Your task to perform on an android device: Show me recent news Image 0: 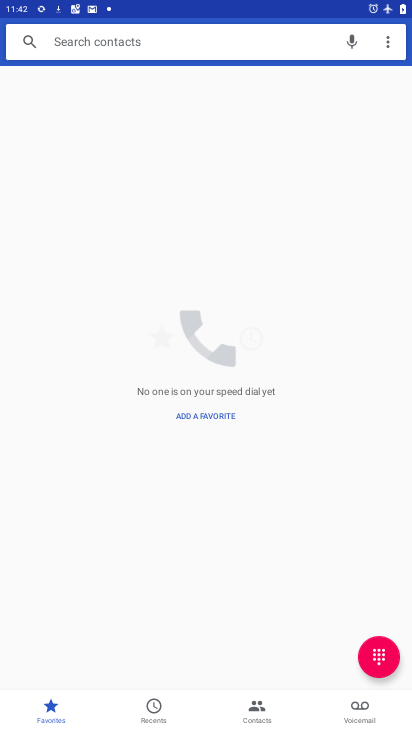
Step 0: press home button
Your task to perform on an android device: Show me recent news Image 1: 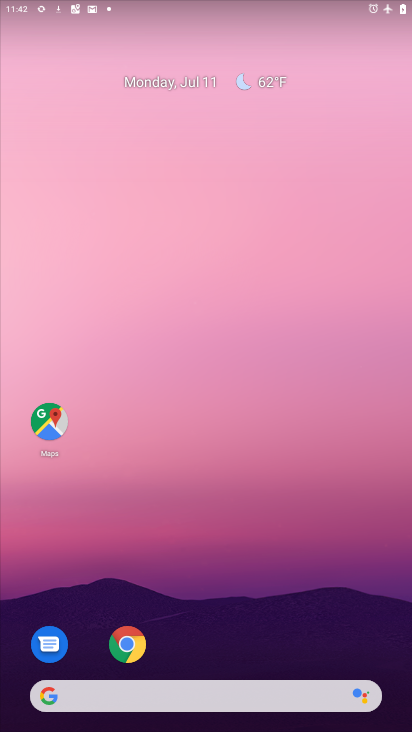
Step 1: task complete